Your task to perform on an android device: turn off wifi Image 0: 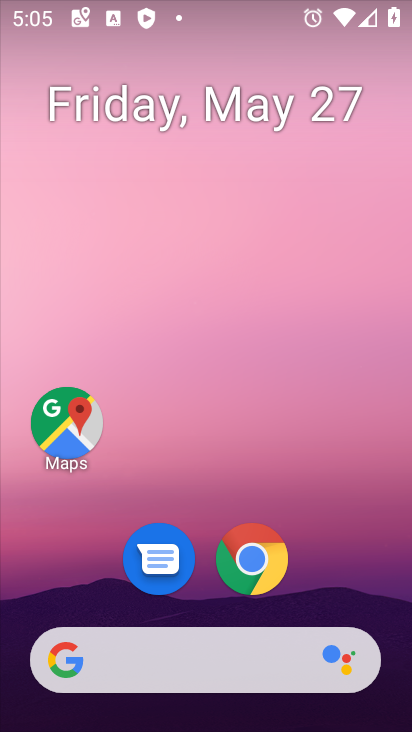
Step 0: drag from (273, 562) to (321, 0)
Your task to perform on an android device: turn off wifi Image 1: 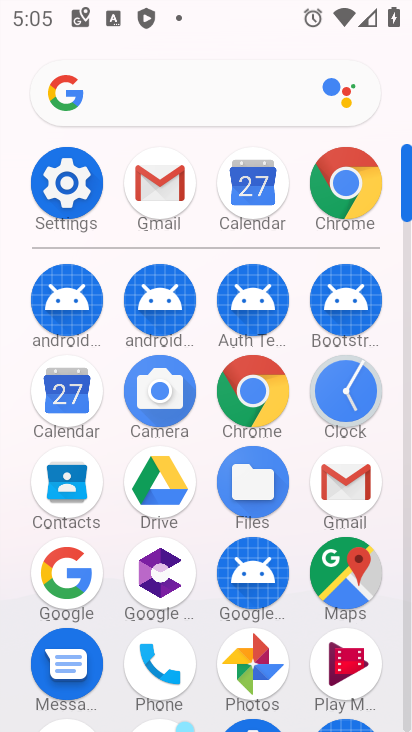
Step 1: click (82, 184)
Your task to perform on an android device: turn off wifi Image 2: 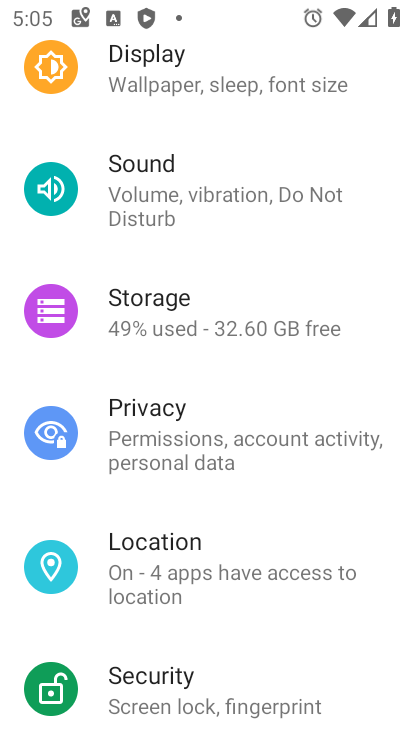
Step 2: drag from (193, 303) to (185, 701)
Your task to perform on an android device: turn off wifi Image 3: 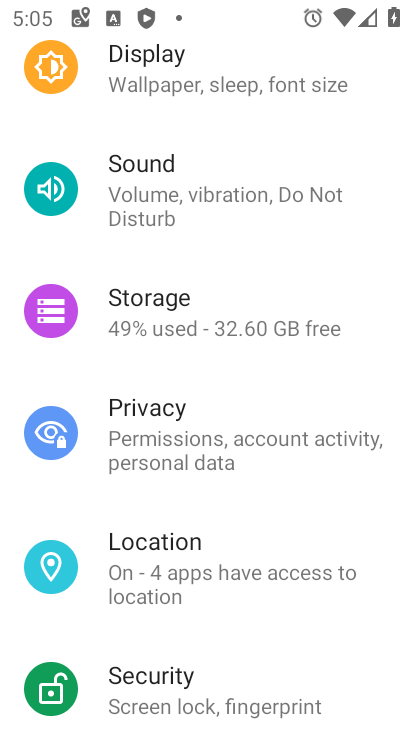
Step 3: drag from (318, 663) to (313, 724)
Your task to perform on an android device: turn off wifi Image 4: 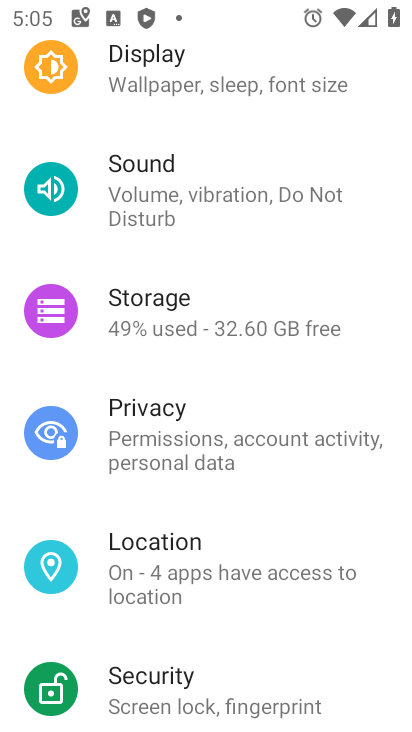
Step 4: drag from (161, 144) to (161, 692)
Your task to perform on an android device: turn off wifi Image 5: 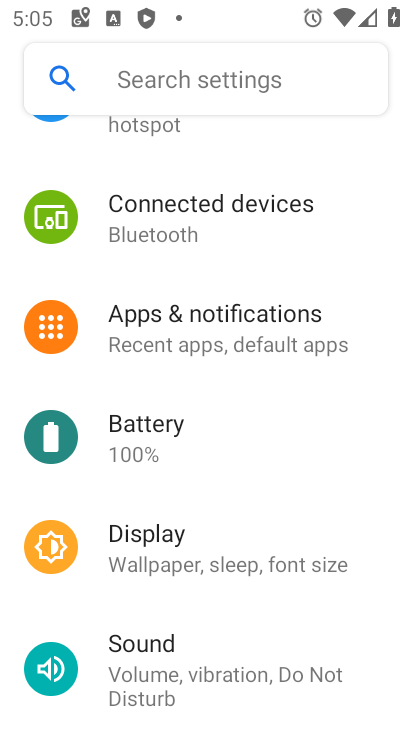
Step 5: drag from (245, 431) to (242, 686)
Your task to perform on an android device: turn off wifi Image 6: 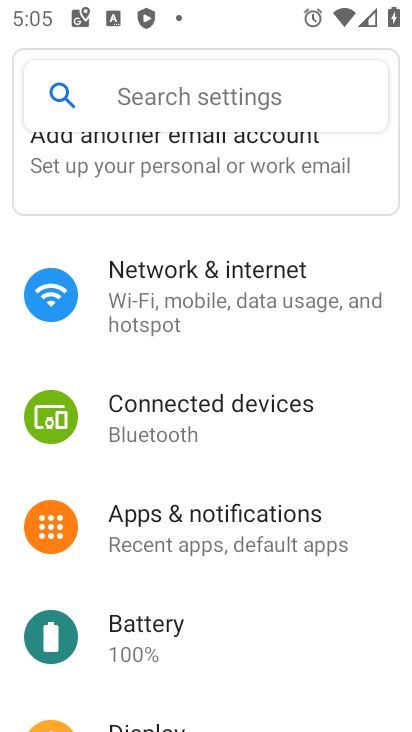
Step 6: drag from (227, 282) to (250, 721)
Your task to perform on an android device: turn off wifi Image 7: 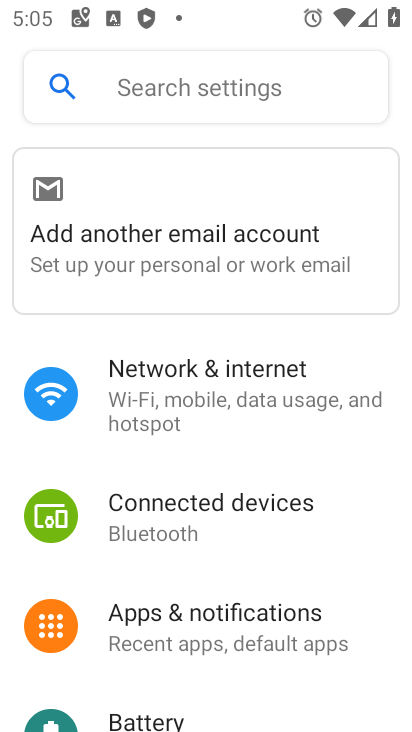
Step 7: click (231, 424)
Your task to perform on an android device: turn off wifi Image 8: 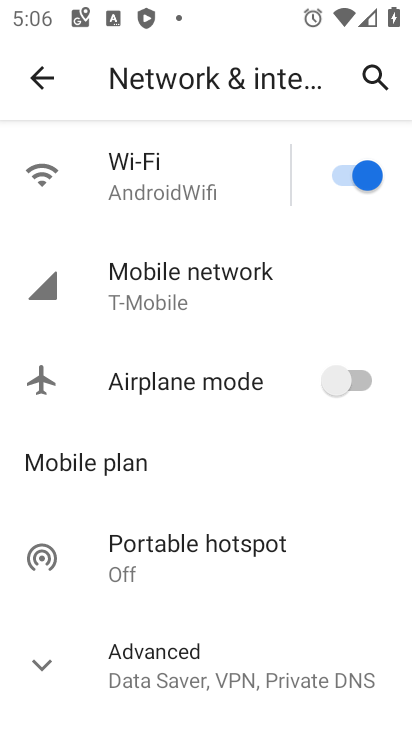
Step 8: click (349, 177)
Your task to perform on an android device: turn off wifi Image 9: 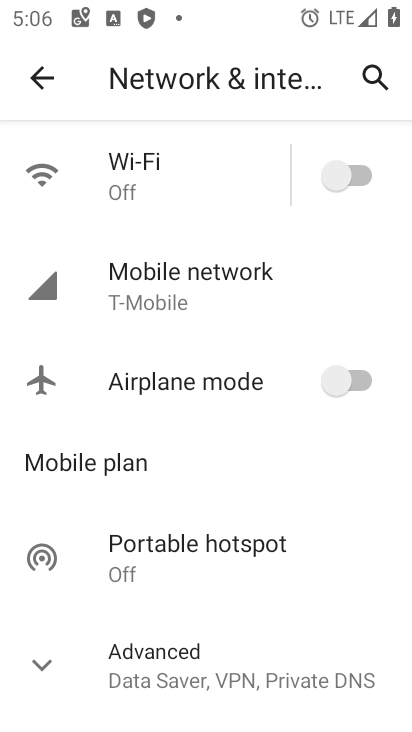
Step 9: task complete